Your task to perform on an android device: turn on notifications settings in the gmail app Image 0: 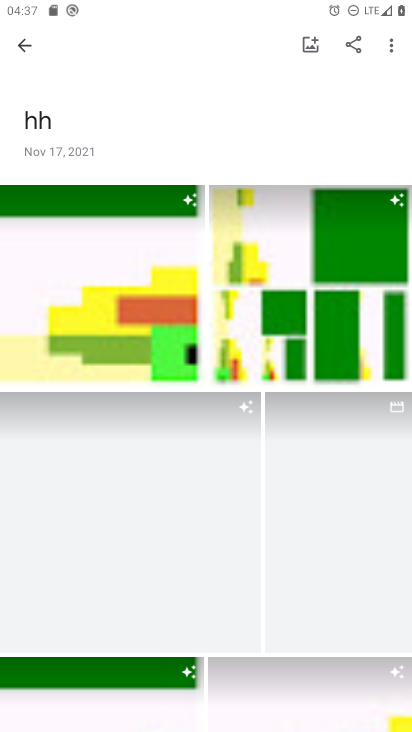
Step 0: press back button
Your task to perform on an android device: turn on notifications settings in the gmail app Image 1: 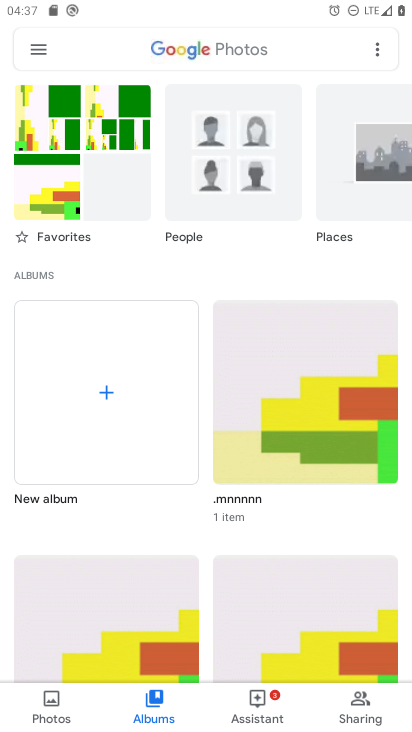
Step 1: press home button
Your task to perform on an android device: turn on notifications settings in the gmail app Image 2: 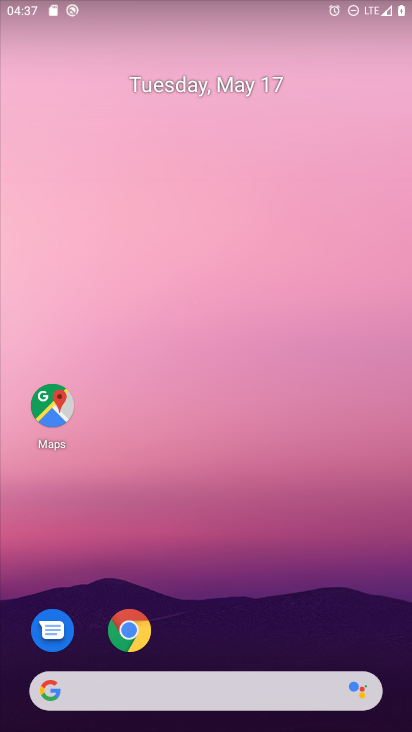
Step 2: drag from (204, 631) to (263, 75)
Your task to perform on an android device: turn on notifications settings in the gmail app Image 3: 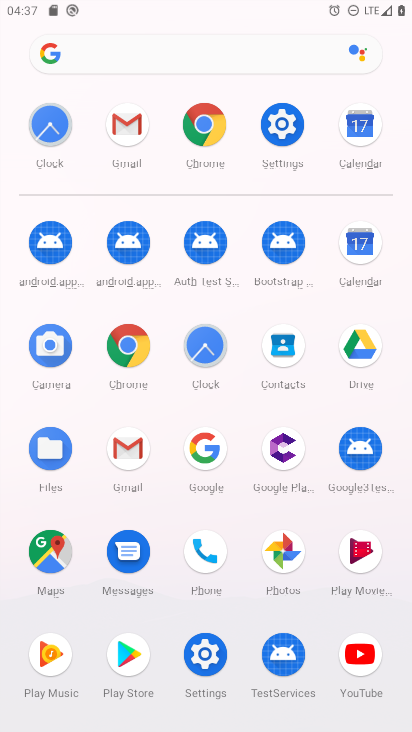
Step 3: click (128, 121)
Your task to perform on an android device: turn on notifications settings in the gmail app Image 4: 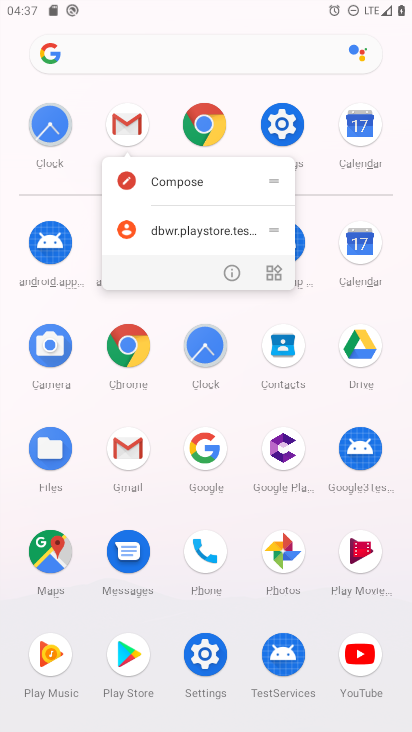
Step 4: click (230, 269)
Your task to perform on an android device: turn on notifications settings in the gmail app Image 5: 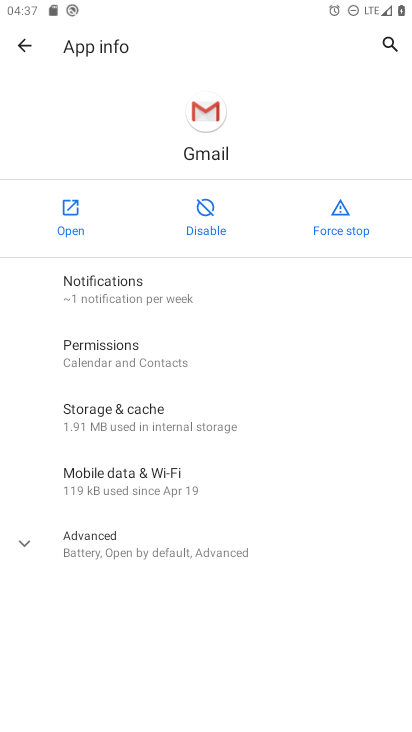
Step 5: click (101, 300)
Your task to perform on an android device: turn on notifications settings in the gmail app Image 6: 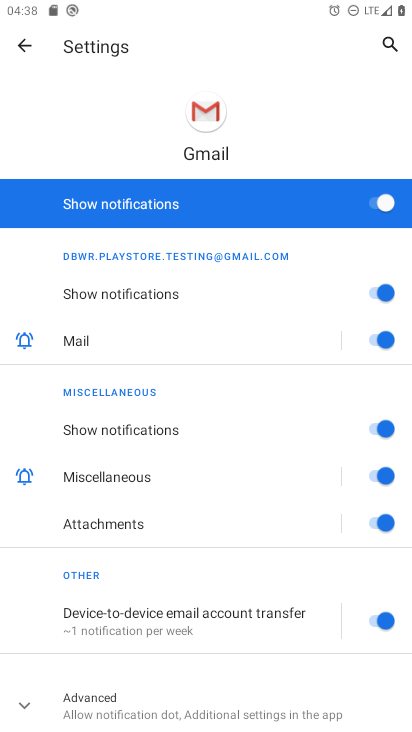
Step 6: task complete